Your task to perform on an android device: Go to accessibility settings Image 0: 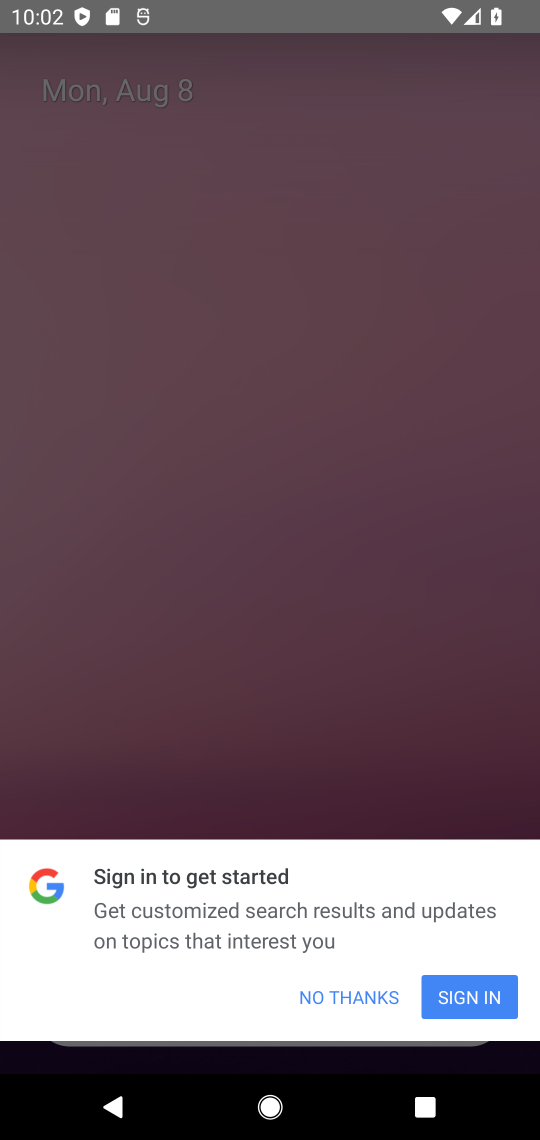
Step 0: press home button
Your task to perform on an android device: Go to accessibility settings Image 1: 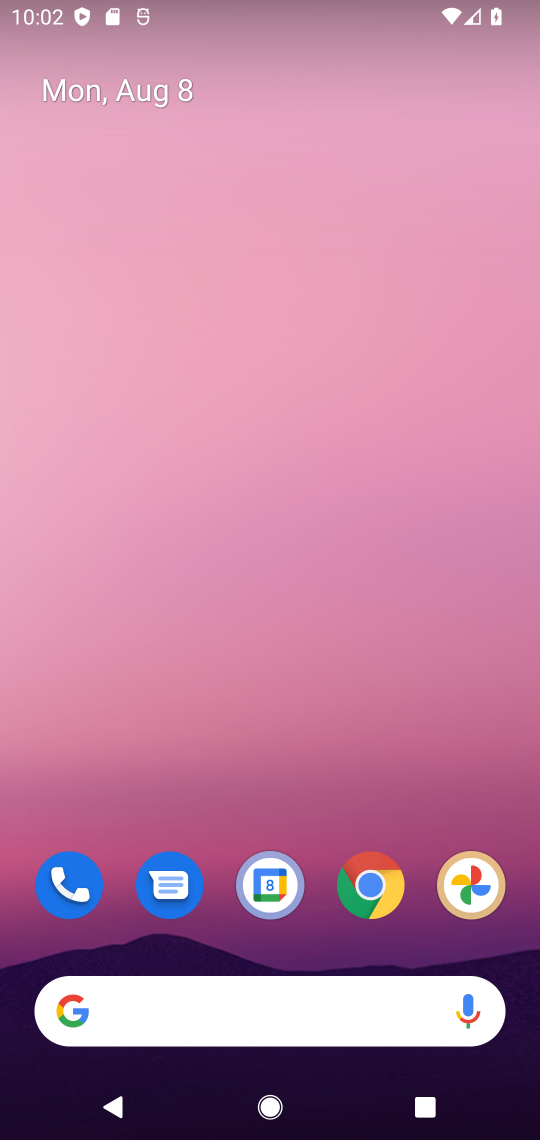
Step 1: drag from (225, 1028) to (334, 156)
Your task to perform on an android device: Go to accessibility settings Image 2: 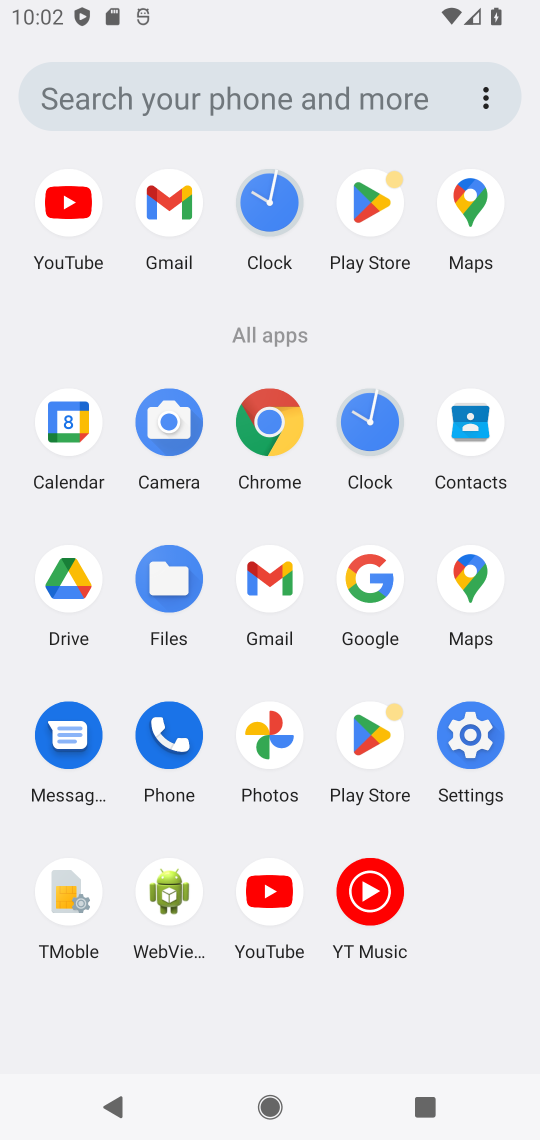
Step 2: click (474, 731)
Your task to perform on an android device: Go to accessibility settings Image 3: 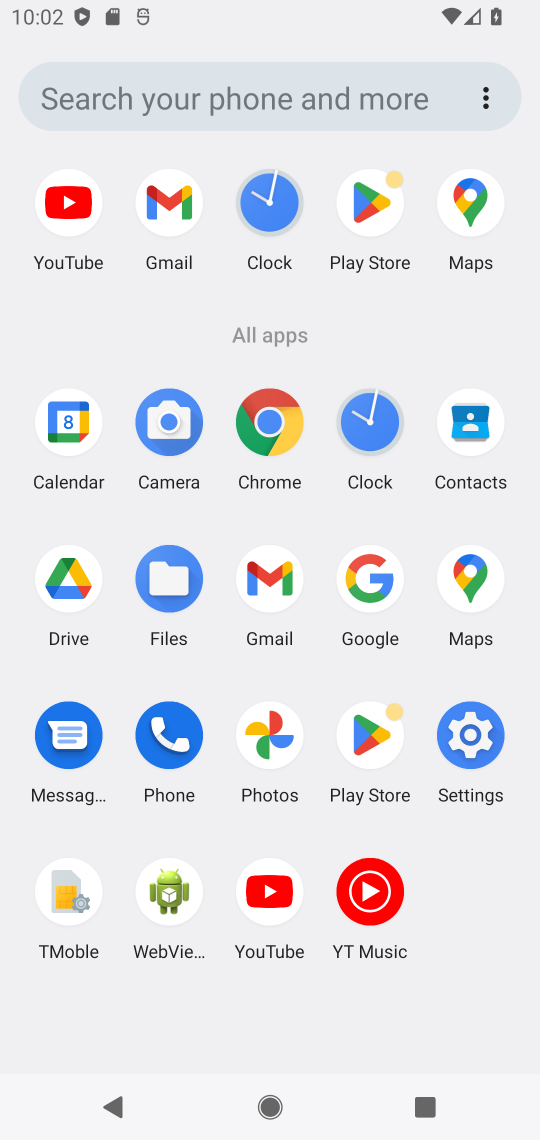
Step 3: click (474, 731)
Your task to perform on an android device: Go to accessibility settings Image 4: 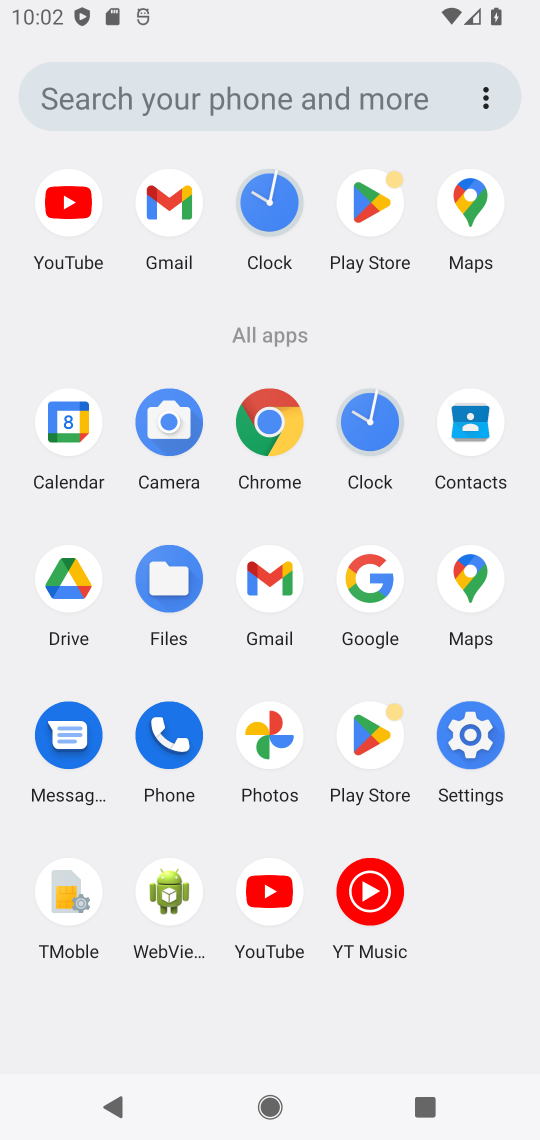
Step 4: click (474, 731)
Your task to perform on an android device: Go to accessibility settings Image 5: 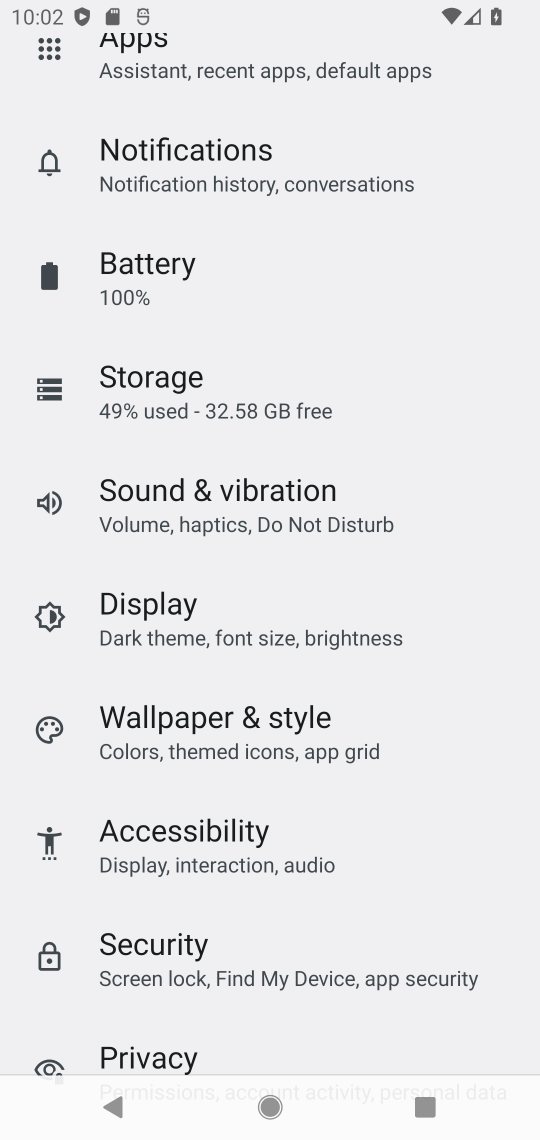
Step 5: click (285, 841)
Your task to perform on an android device: Go to accessibility settings Image 6: 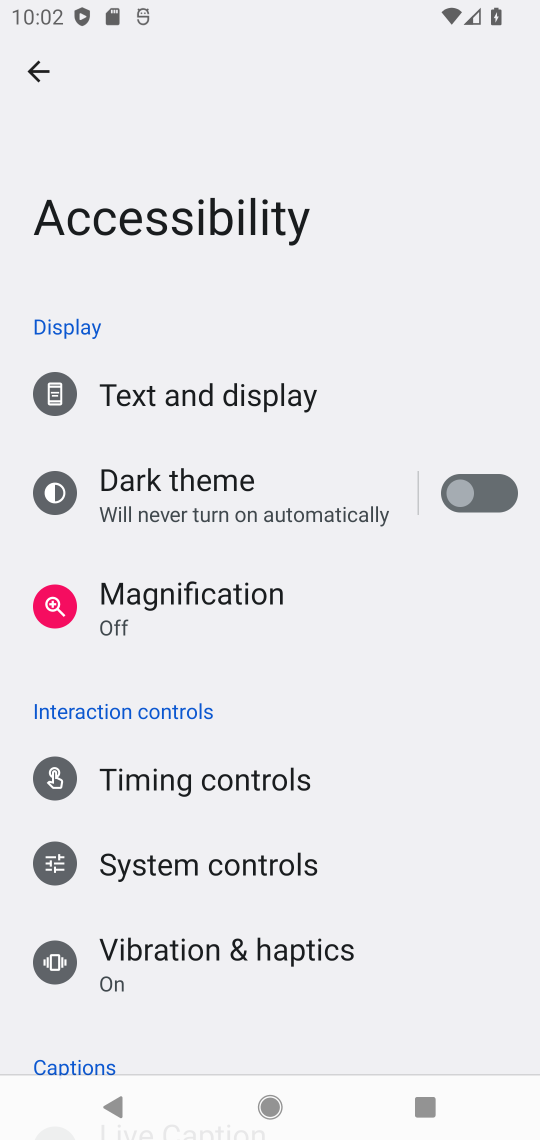
Step 6: task complete